Your task to perform on an android device: check storage Image 0: 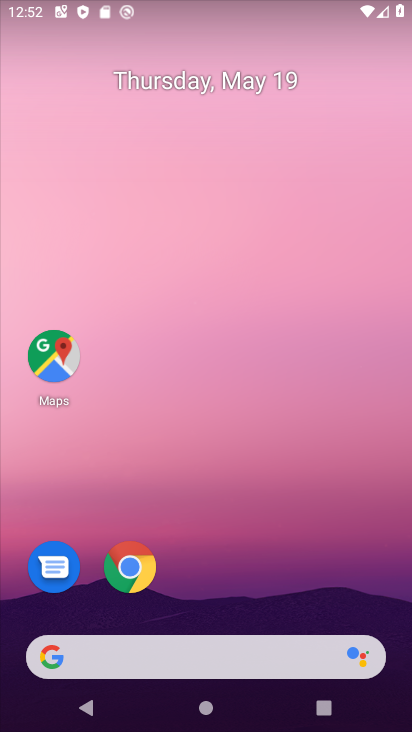
Step 0: press home button
Your task to perform on an android device: check storage Image 1: 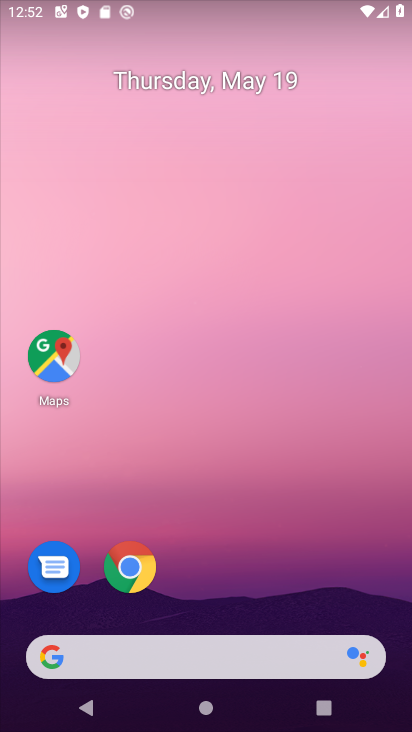
Step 1: drag from (81, 517) to (256, 133)
Your task to perform on an android device: check storage Image 2: 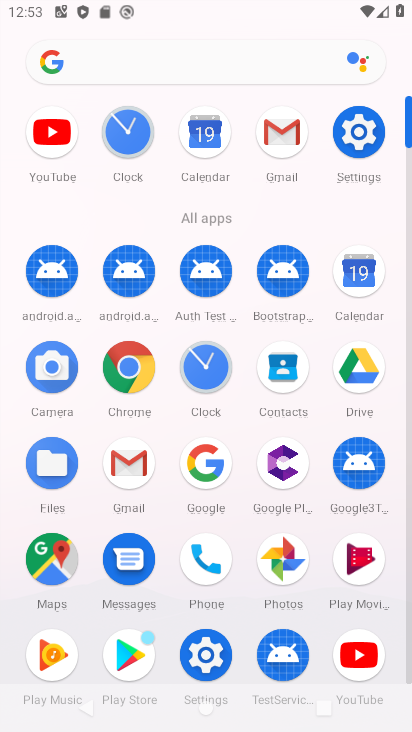
Step 2: click (363, 136)
Your task to perform on an android device: check storage Image 3: 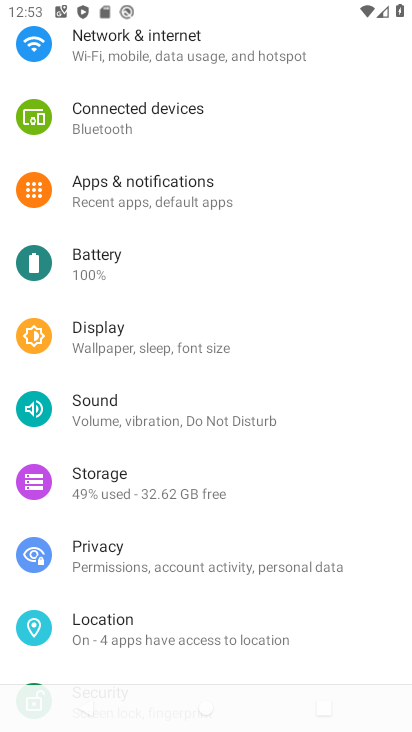
Step 3: click (165, 480)
Your task to perform on an android device: check storage Image 4: 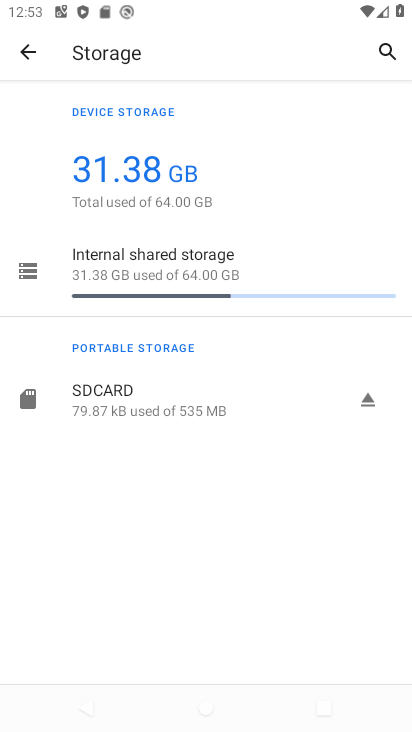
Step 4: task complete